Your task to perform on an android device: clear all cookies in the chrome app Image 0: 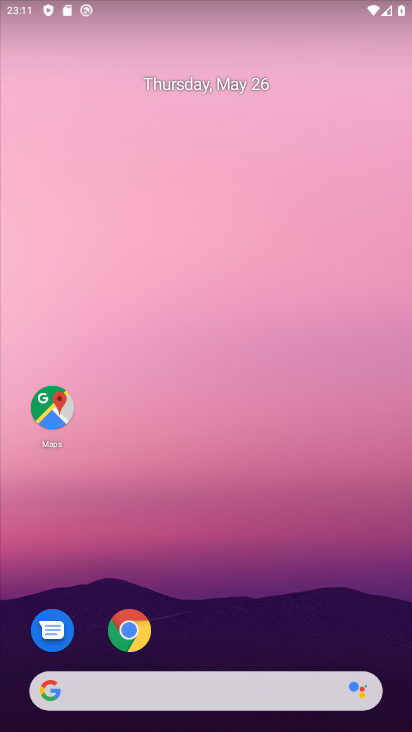
Step 0: click (130, 630)
Your task to perform on an android device: clear all cookies in the chrome app Image 1: 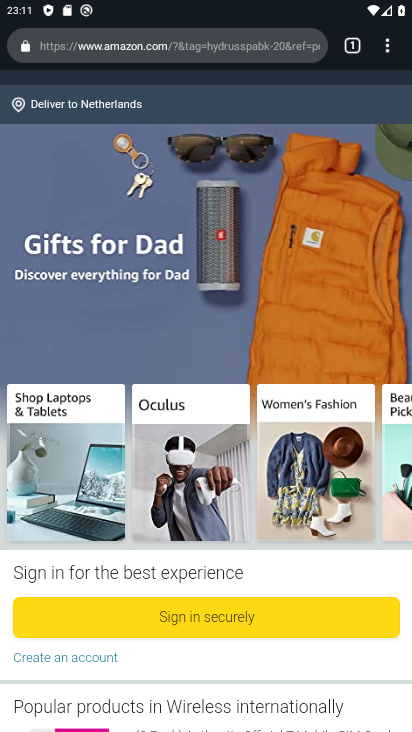
Step 1: click (388, 46)
Your task to perform on an android device: clear all cookies in the chrome app Image 2: 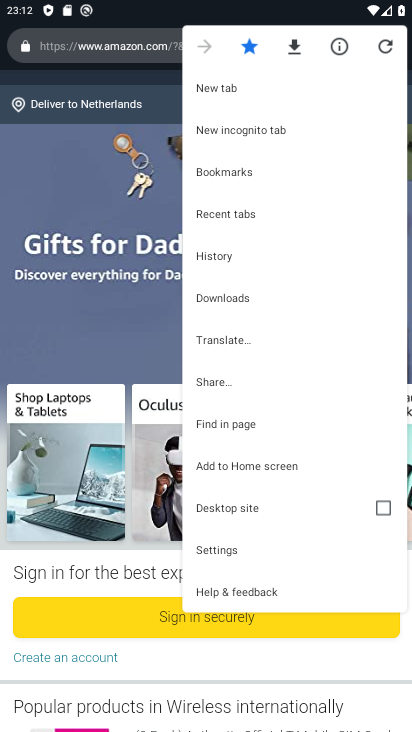
Step 2: click (231, 546)
Your task to perform on an android device: clear all cookies in the chrome app Image 3: 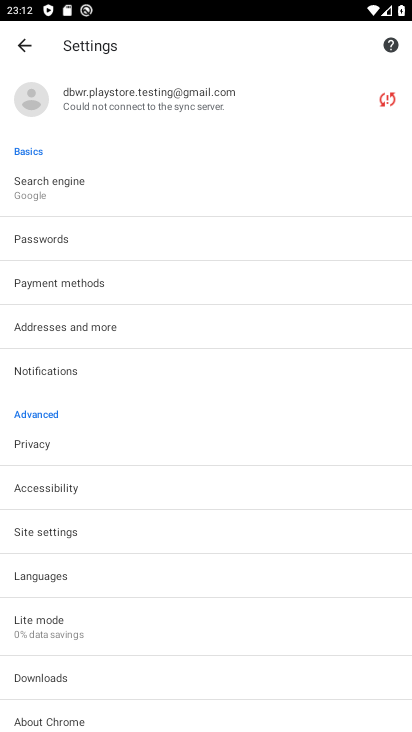
Step 3: click (45, 440)
Your task to perform on an android device: clear all cookies in the chrome app Image 4: 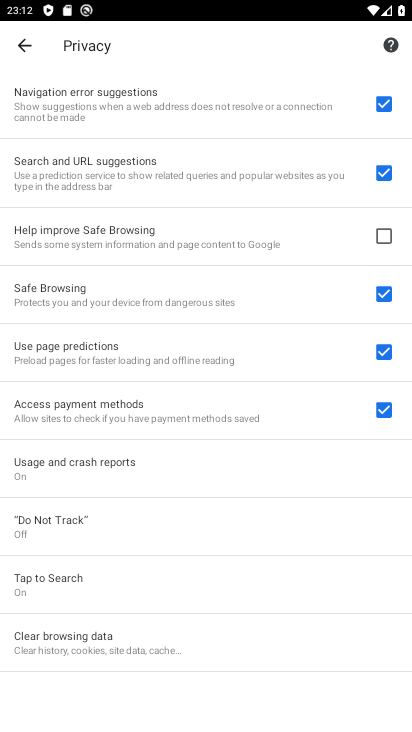
Step 4: click (90, 650)
Your task to perform on an android device: clear all cookies in the chrome app Image 5: 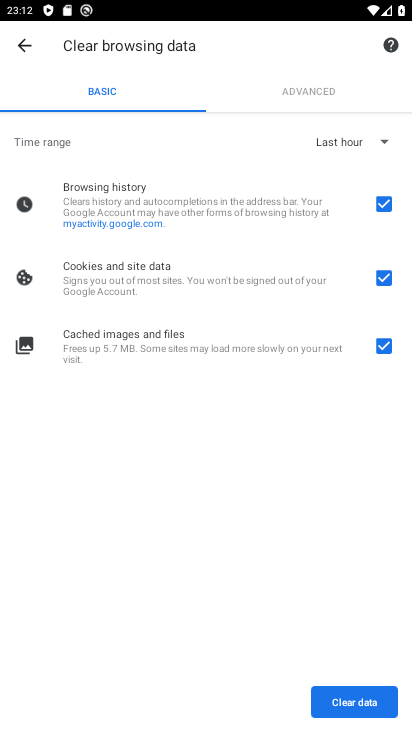
Step 5: click (353, 701)
Your task to perform on an android device: clear all cookies in the chrome app Image 6: 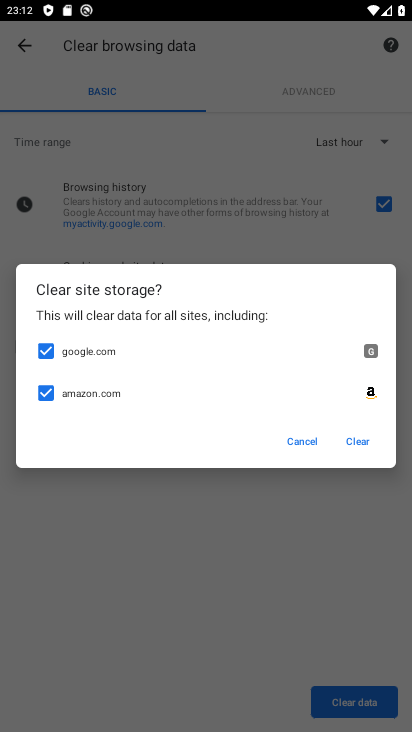
Step 6: click (361, 442)
Your task to perform on an android device: clear all cookies in the chrome app Image 7: 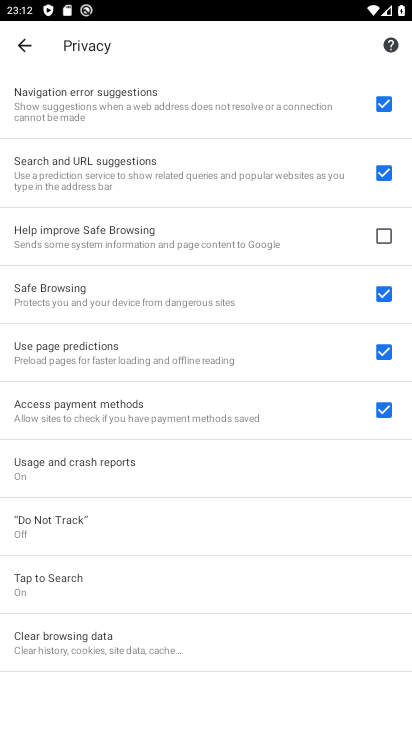
Step 7: task complete